Your task to perform on an android device: Open calendar and show me the first week of next month Image 0: 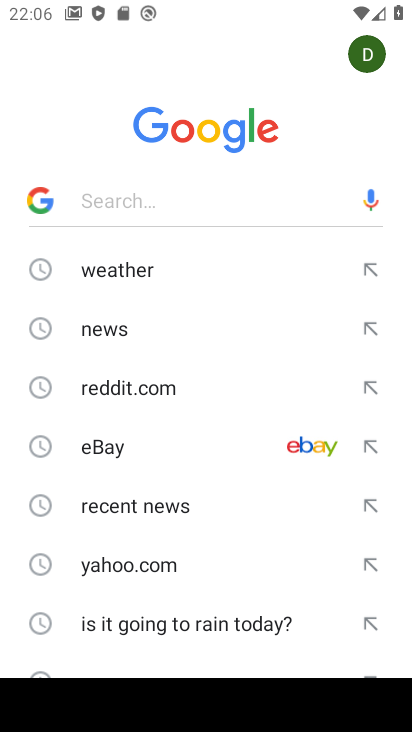
Step 0: press home button
Your task to perform on an android device: Open calendar and show me the first week of next month Image 1: 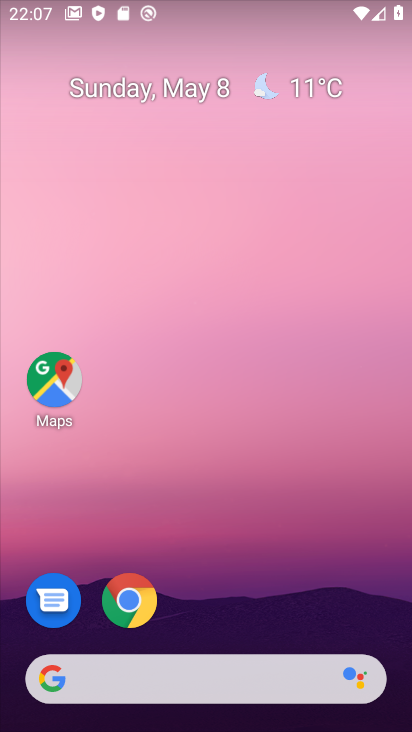
Step 1: click (220, 78)
Your task to perform on an android device: Open calendar and show me the first week of next month Image 2: 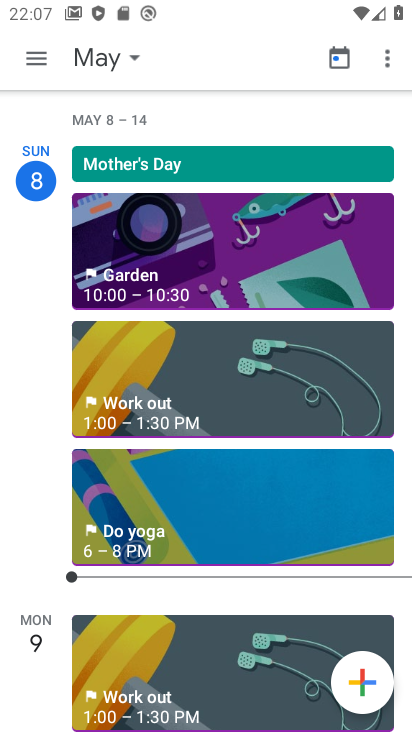
Step 2: click (112, 49)
Your task to perform on an android device: Open calendar and show me the first week of next month Image 3: 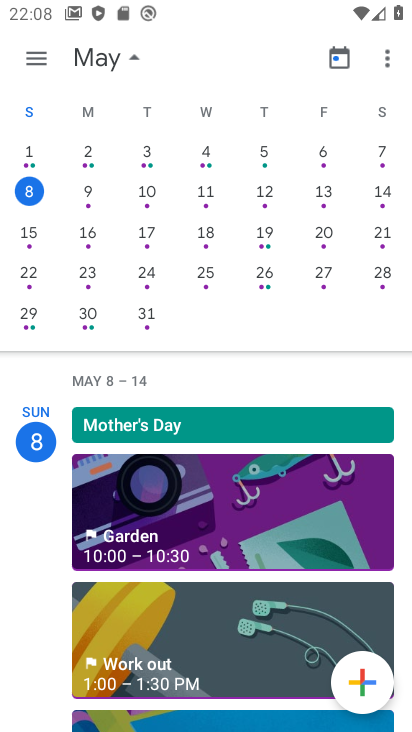
Step 3: task complete